Your task to perform on an android device: search for starred emails in the gmail app Image 0: 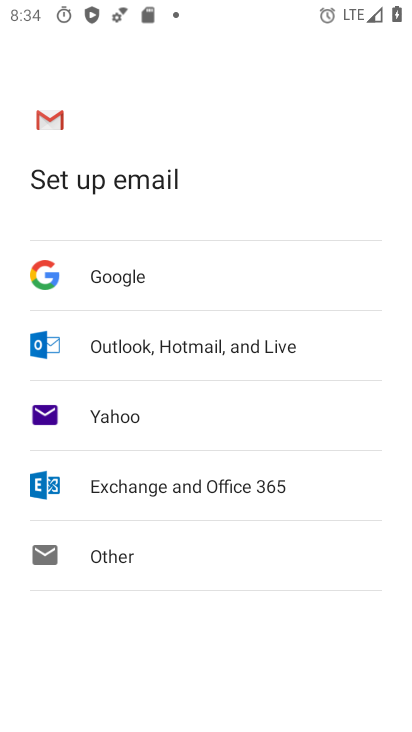
Step 0: press home button
Your task to perform on an android device: search for starred emails in the gmail app Image 1: 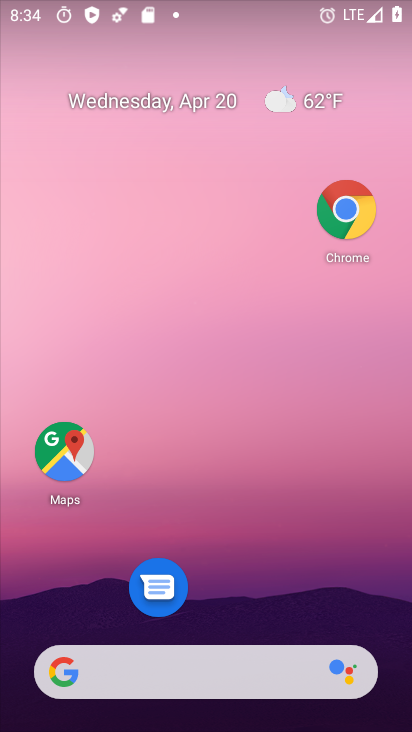
Step 1: drag from (218, 626) to (241, 0)
Your task to perform on an android device: search for starred emails in the gmail app Image 2: 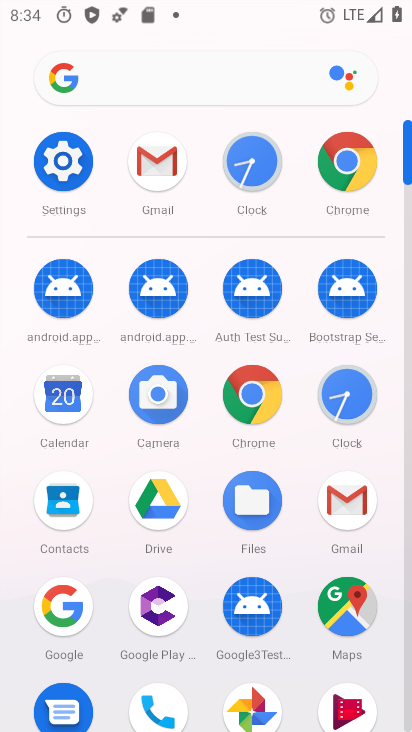
Step 2: click (331, 496)
Your task to perform on an android device: search for starred emails in the gmail app Image 3: 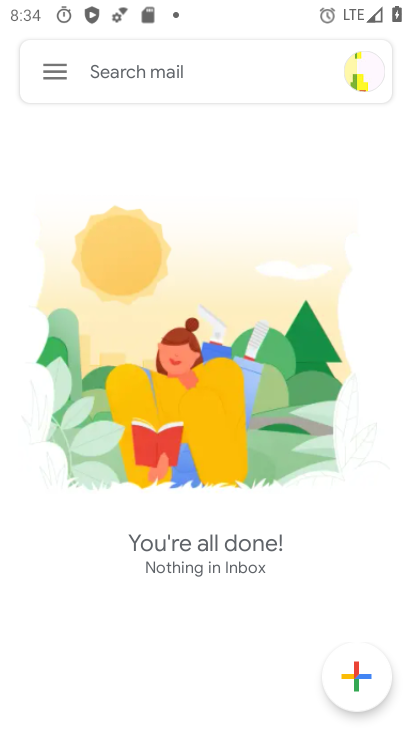
Step 3: click (50, 71)
Your task to perform on an android device: search for starred emails in the gmail app Image 4: 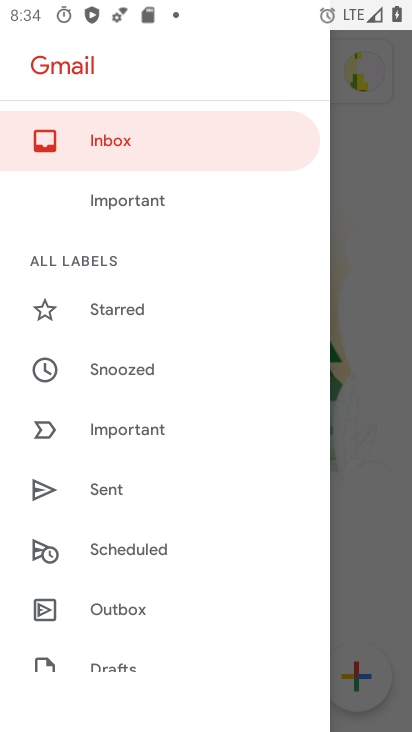
Step 4: click (91, 308)
Your task to perform on an android device: search for starred emails in the gmail app Image 5: 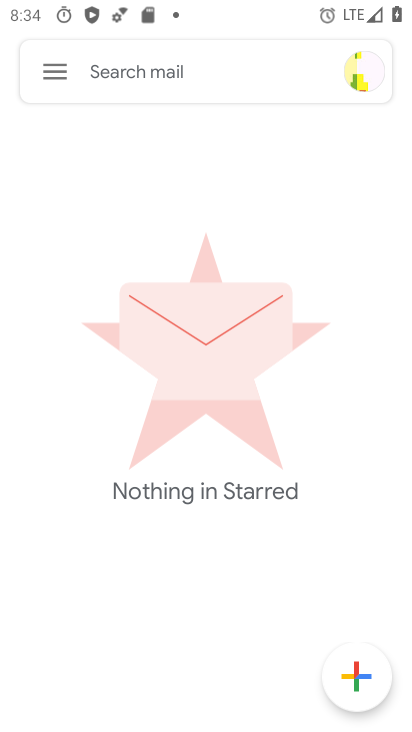
Step 5: task complete